Your task to perform on an android device: Show me recent news Image 0: 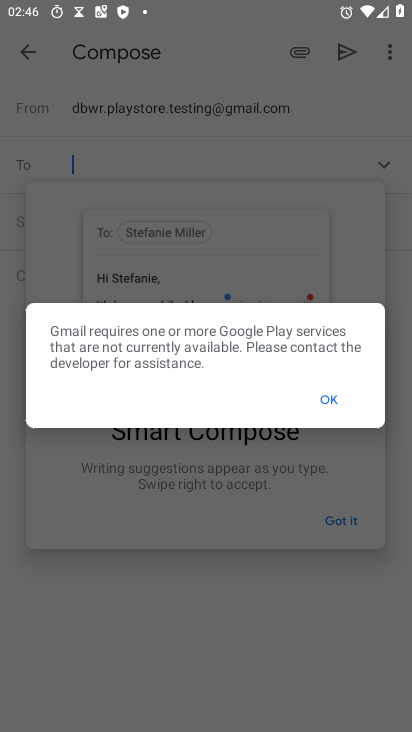
Step 0: press home button
Your task to perform on an android device: Show me recent news Image 1: 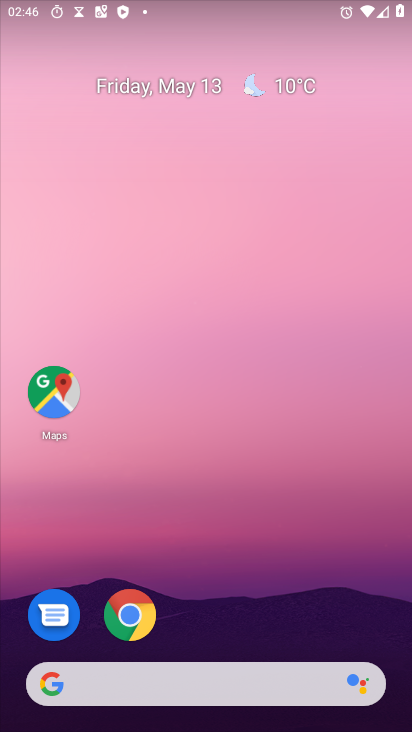
Step 1: click (131, 622)
Your task to perform on an android device: Show me recent news Image 2: 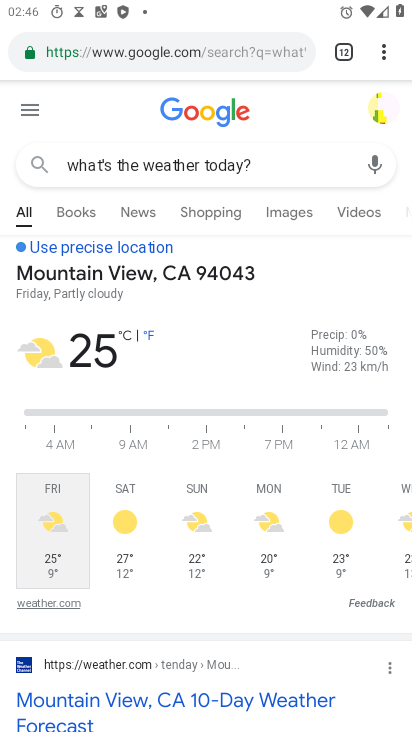
Step 2: click (346, 53)
Your task to perform on an android device: Show me recent news Image 3: 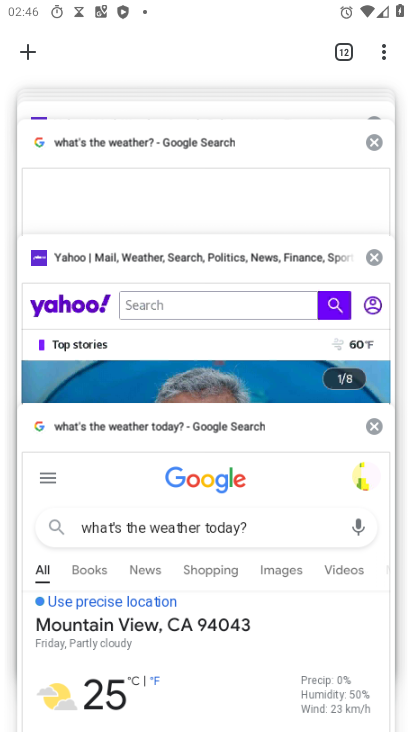
Step 3: drag from (178, 174) to (199, 623)
Your task to perform on an android device: Show me recent news Image 4: 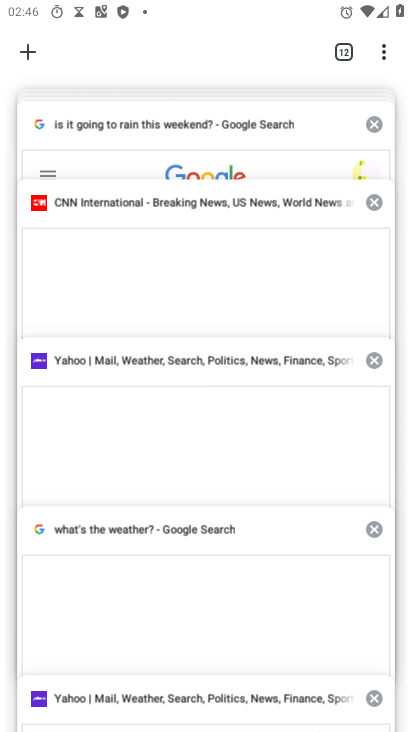
Step 4: drag from (222, 182) to (200, 625)
Your task to perform on an android device: Show me recent news Image 5: 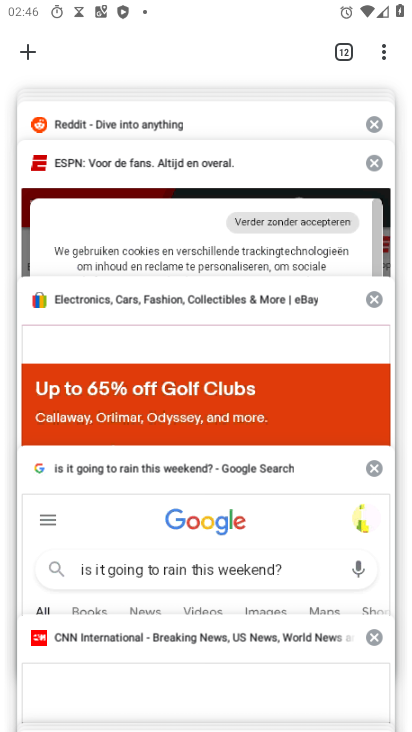
Step 5: drag from (202, 185) to (183, 641)
Your task to perform on an android device: Show me recent news Image 6: 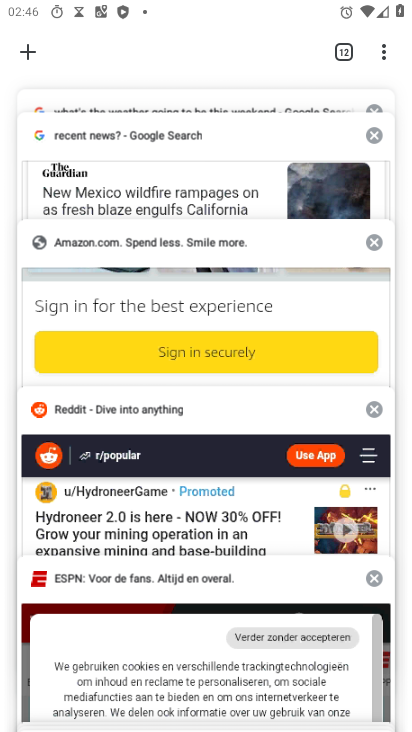
Step 6: click (155, 165)
Your task to perform on an android device: Show me recent news Image 7: 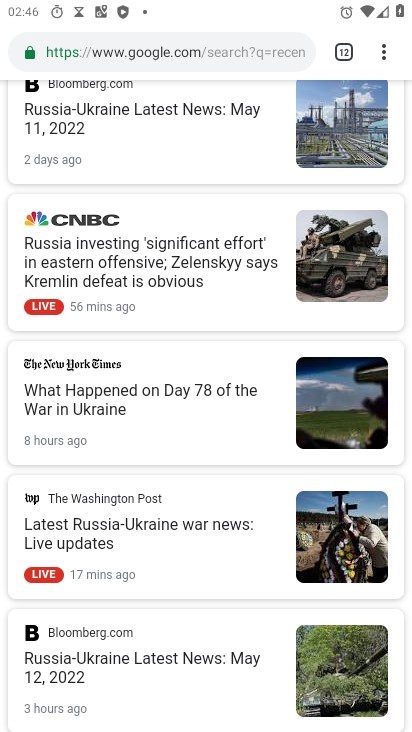
Step 7: task complete